Your task to perform on an android device: What's the weather going to be tomorrow? Image 0: 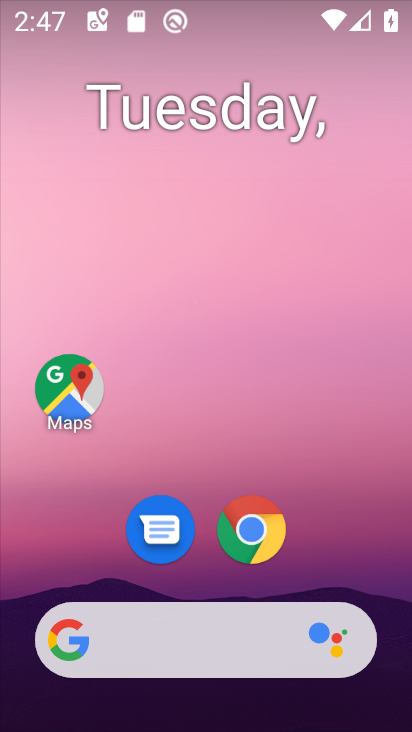
Step 0: click (239, 515)
Your task to perform on an android device: What's the weather going to be tomorrow? Image 1: 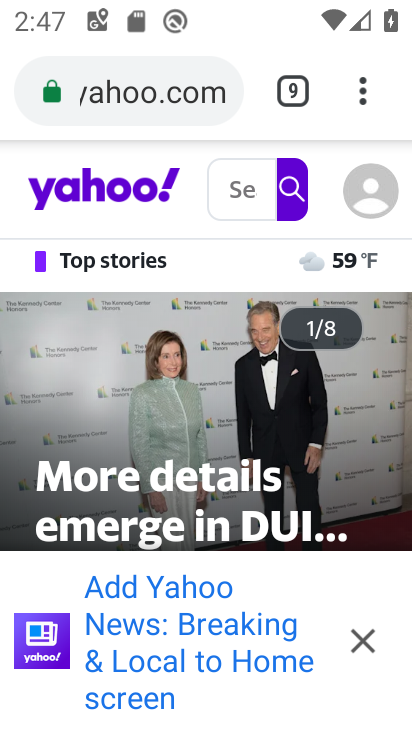
Step 1: click (357, 93)
Your task to perform on an android device: What's the weather going to be tomorrow? Image 2: 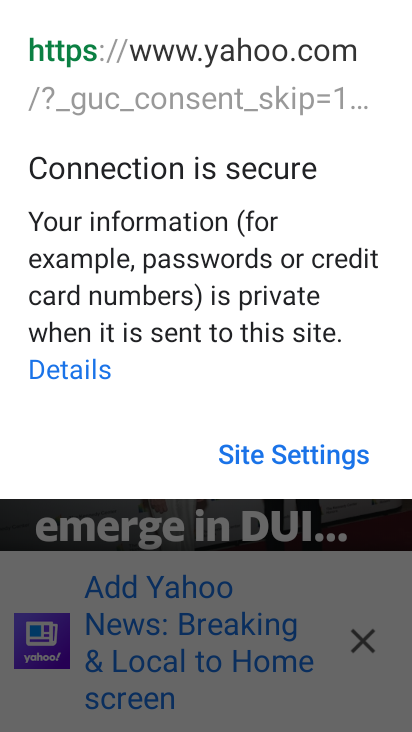
Step 2: press back button
Your task to perform on an android device: What's the weather going to be tomorrow? Image 3: 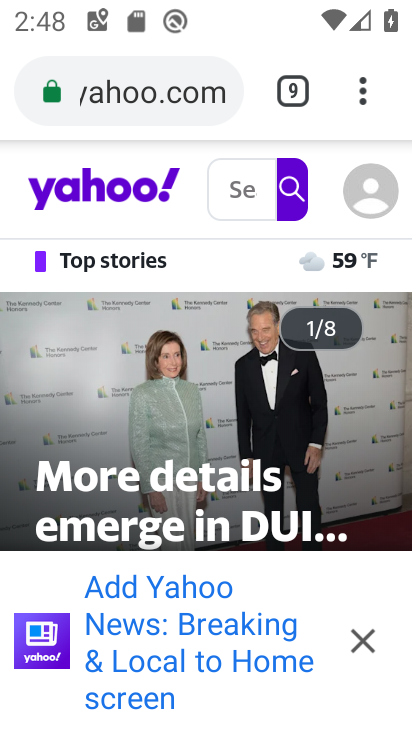
Step 3: click (362, 99)
Your task to perform on an android device: What's the weather going to be tomorrow? Image 4: 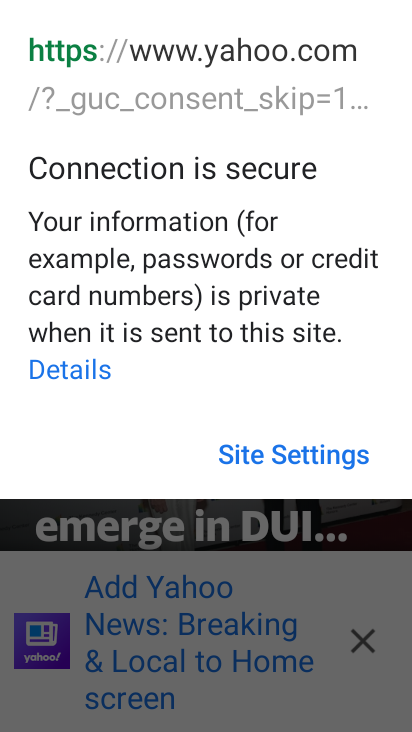
Step 4: press back button
Your task to perform on an android device: What's the weather going to be tomorrow? Image 5: 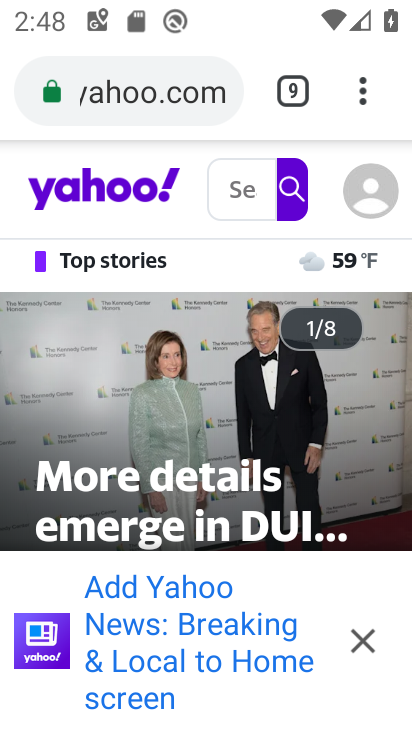
Step 5: click (366, 65)
Your task to perform on an android device: What's the weather going to be tomorrow? Image 6: 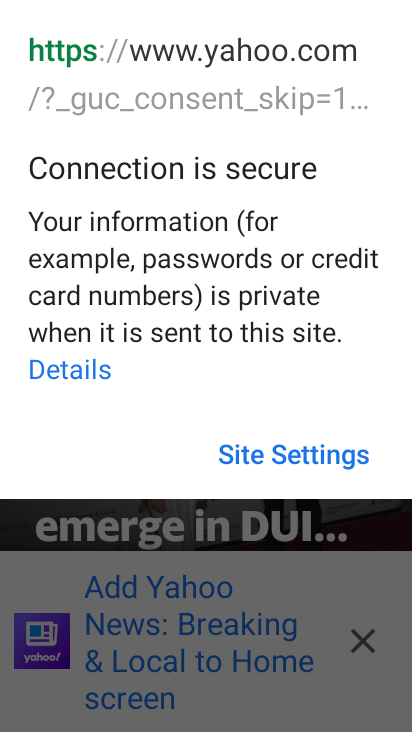
Step 6: press back button
Your task to perform on an android device: What's the weather going to be tomorrow? Image 7: 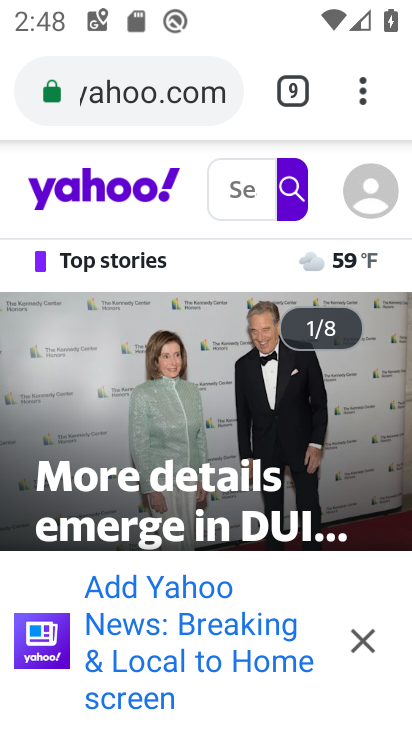
Step 7: click (351, 102)
Your task to perform on an android device: What's the weather going to be tomorrow? Image 8: 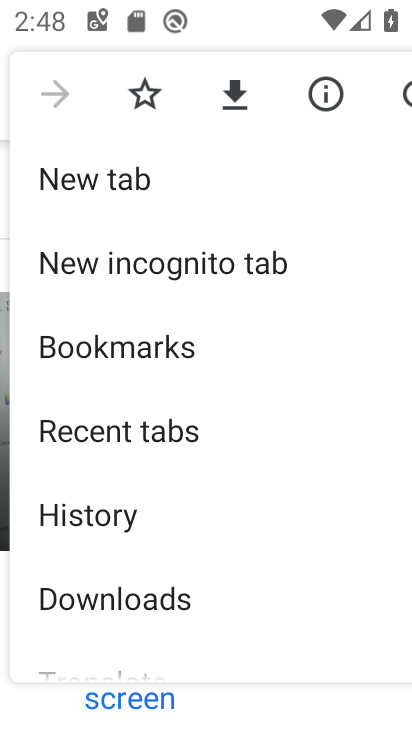
Step 8: drag from (137, 547) to (179, 369)
Your task to perform on an android device: What's the weather going to be tomorrow? Image 9: 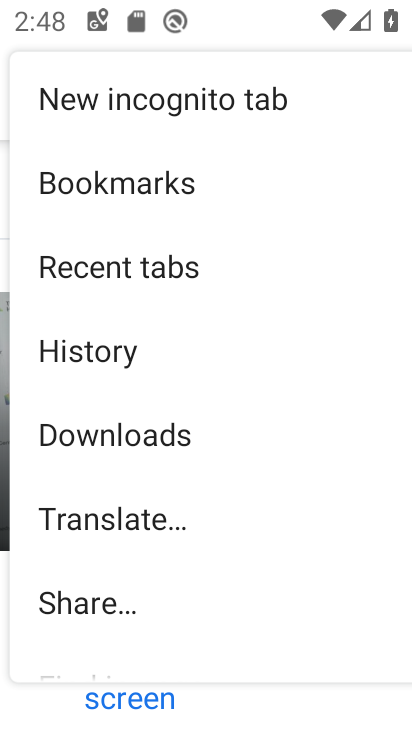
Step 9: drag from (181, 144) to (161, 429)
Your task to perform on an android device: What's the weather going to be tomorrow? Image 10: 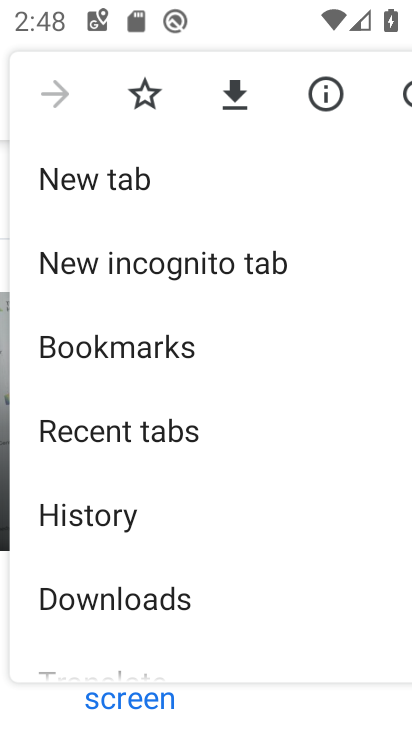
Step 10: click (124, 174)
Your task to perform on an android device: What's the weather going to be tomorrow? Image 11: 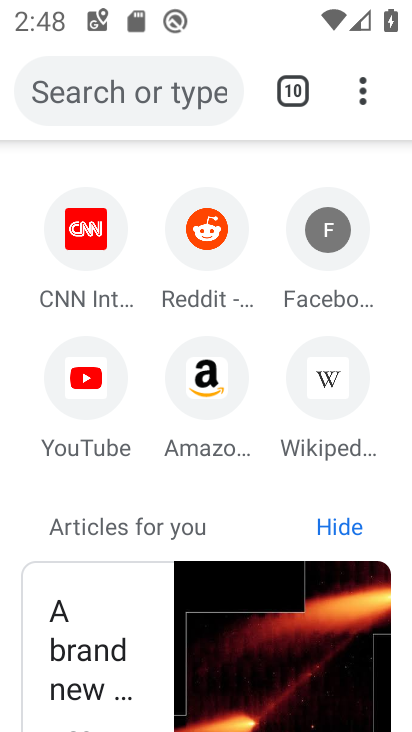
Step 11: click (187, 88)
Your task to perform on an android device: What's the weather going to be tomorrow? Image 12: 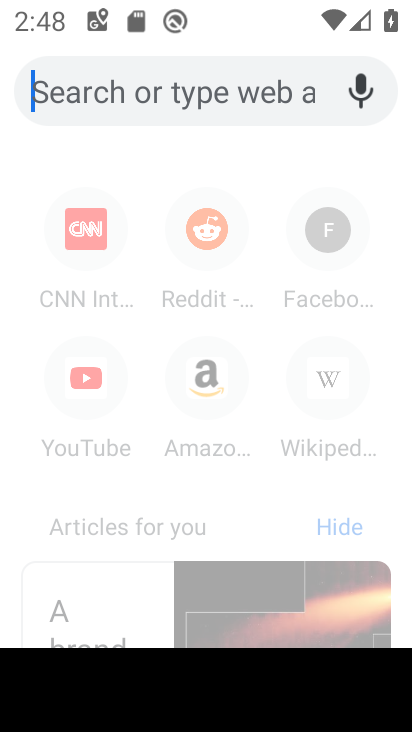
Step 12: type "What's the weather going to be tomorrow?"
Your task to perform on an android device: What's the weather going to be tomorrow? Image 13: 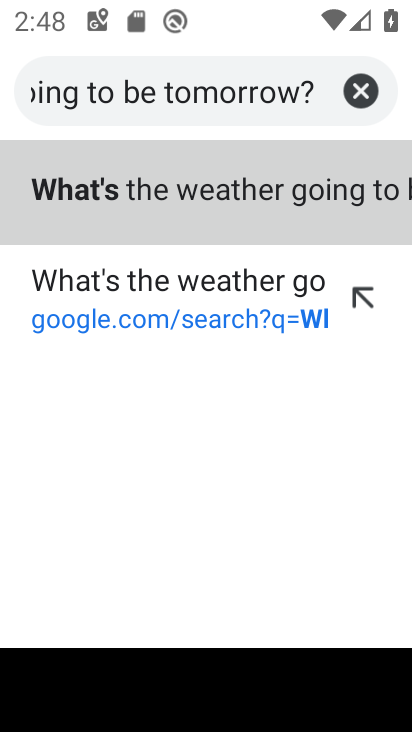
Step 13: click (211, 186)
Your task to perform on an android device: What's the weather going to be tomorrow? Image 14: 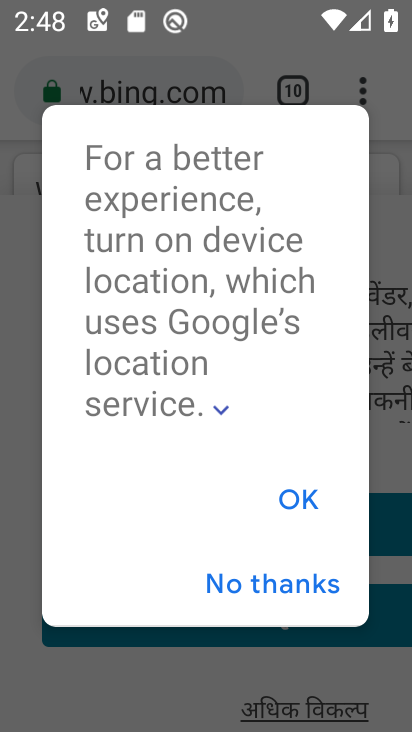
Step 14: click (297, 494)
Your task to perform on an android device: What's the weather going to be tomorrow? Image 15: 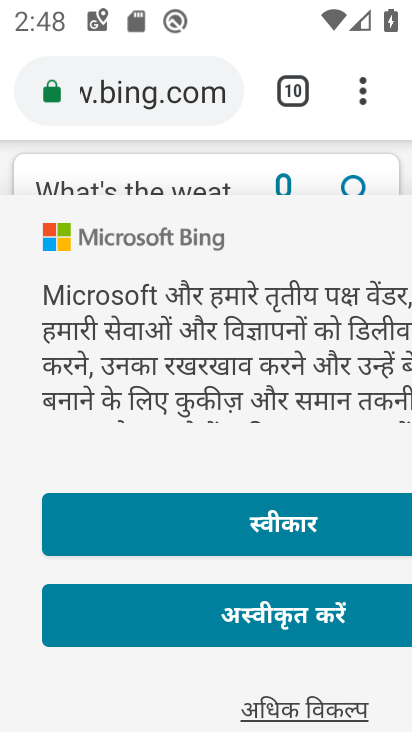
Step 15: task complete